Your task to perform on an android device: Search for "energizer triple a" on ebay, select the first entry, and add it to the cart. Image 0: 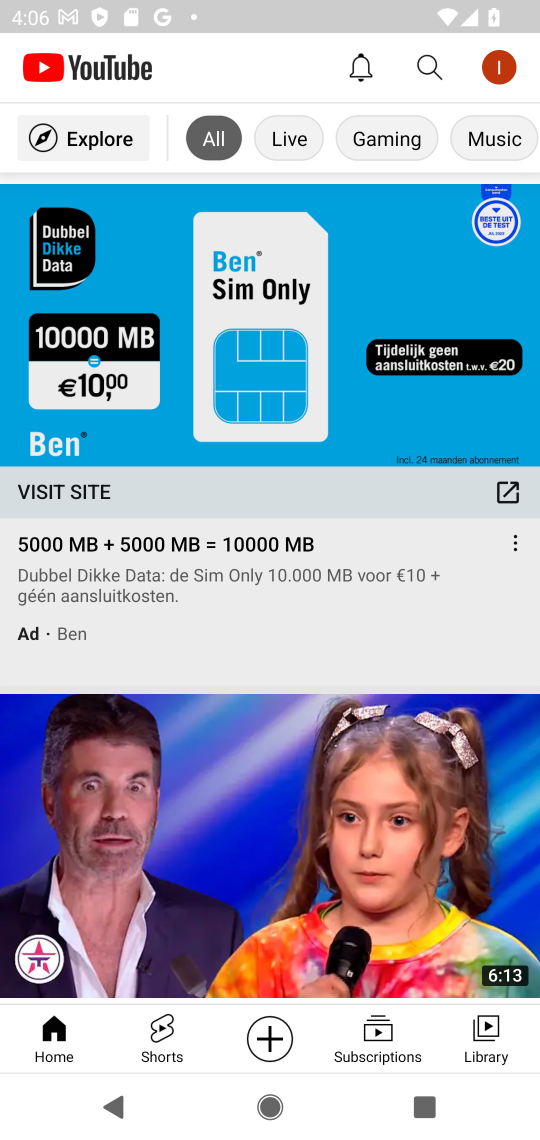
Step 0: press home button
Your task to perform on an android device: Search for "energizer triple a" on ebay, select the first entry, and add it to the cart. Image 1: 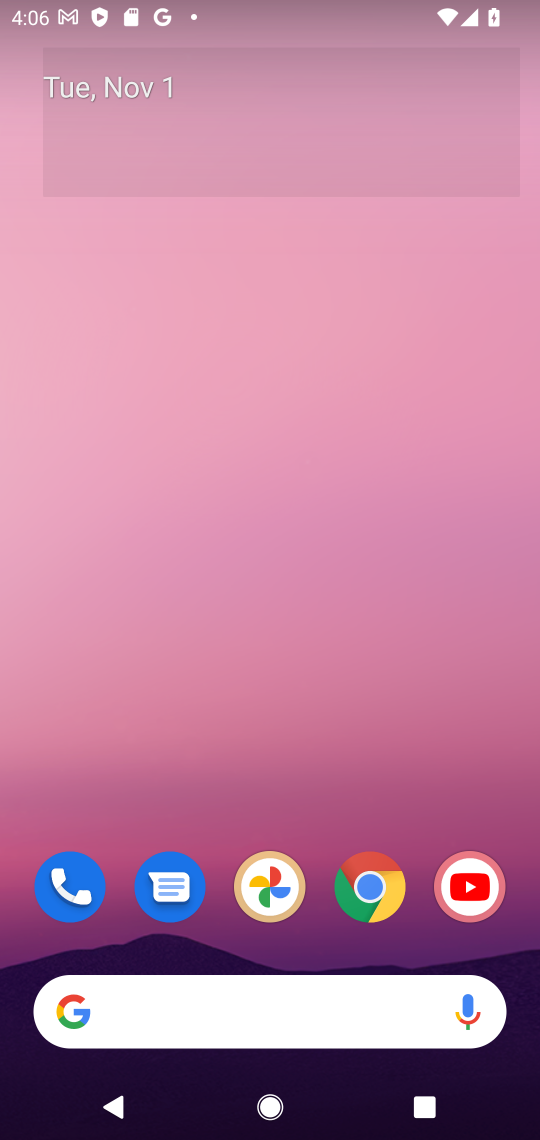
Step 1: drag from (348, 409) to (342, 155)
Your task to perform on an android device: Search for "energizer triple a" on ebay, select the first entry, and add it to the cart. Image 2: 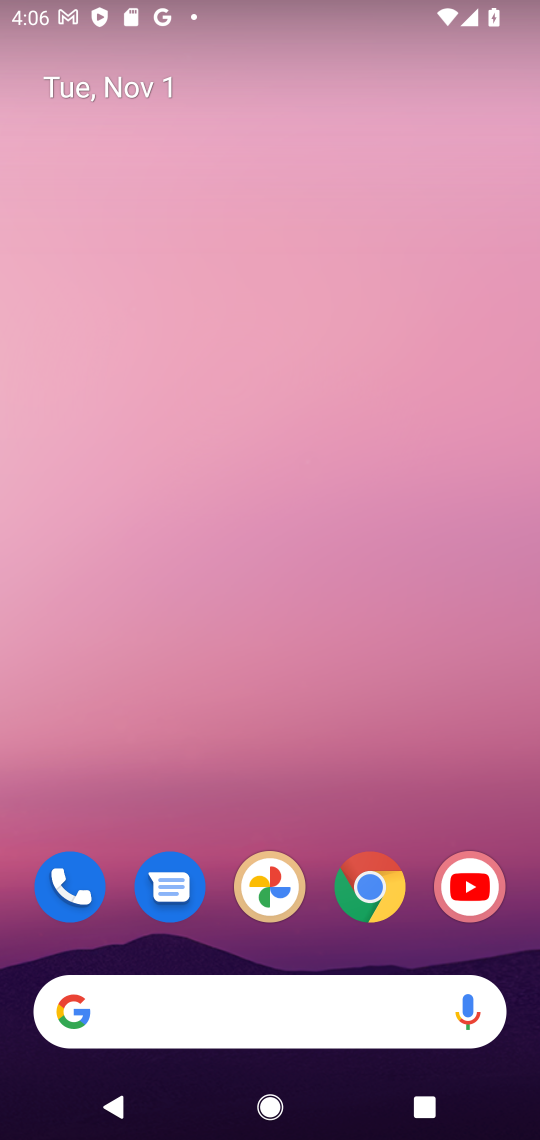
Step 2: drag from (310, 956) to (277, 221)
Your task to perform on an android device: Search for "energizer triple a" on ebay, select the first entry, and add it to the cart. Image 3: 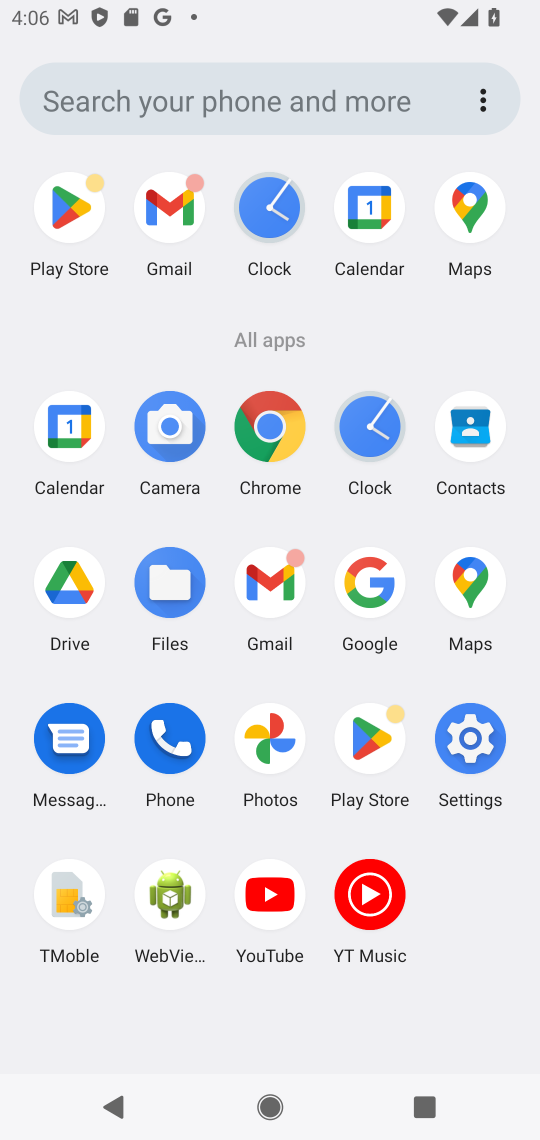
Step 3: click (265, 427)
Your task to perform on an android device: Search for "energizer triple a" on ebay, select the first entry, and add it to the cart. Image 4: 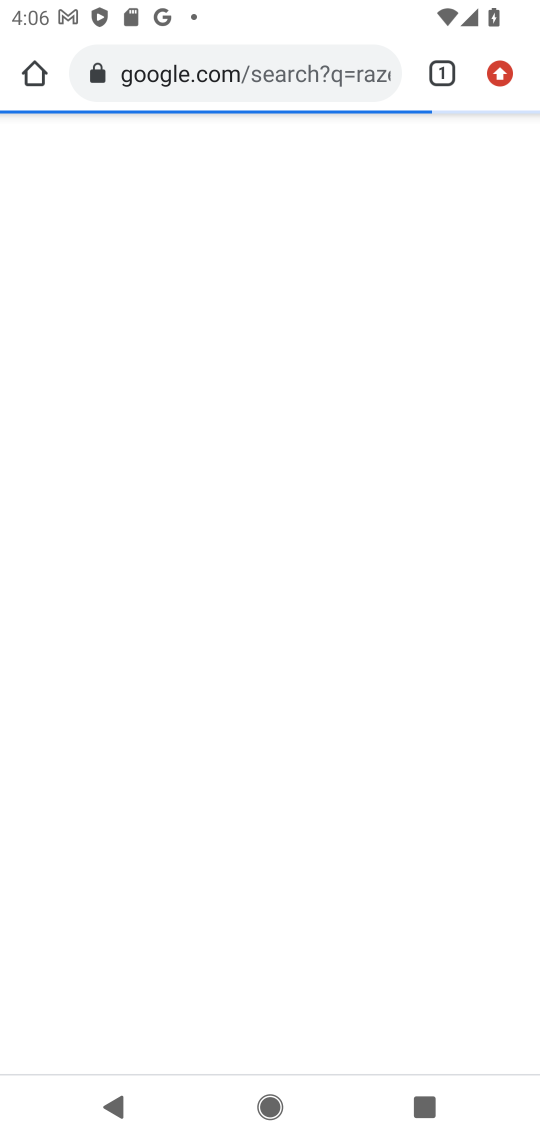
Step 4: click (318, 83)
Your task to perform on an android device: Search for "energizer triple a" on ebay, select the first entry, and add it to the cart. Image 5: 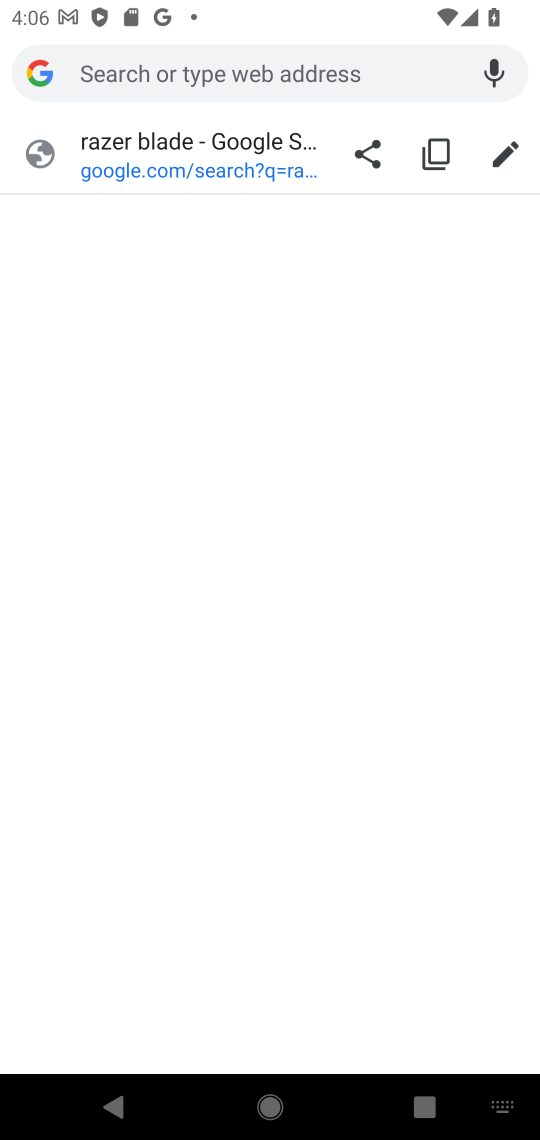
Step 5: type "ebay.com"
Your task to perform on an android device: Search for "energizer triple a" on ebay, select the first entry, and add it to the cart. Image 6: 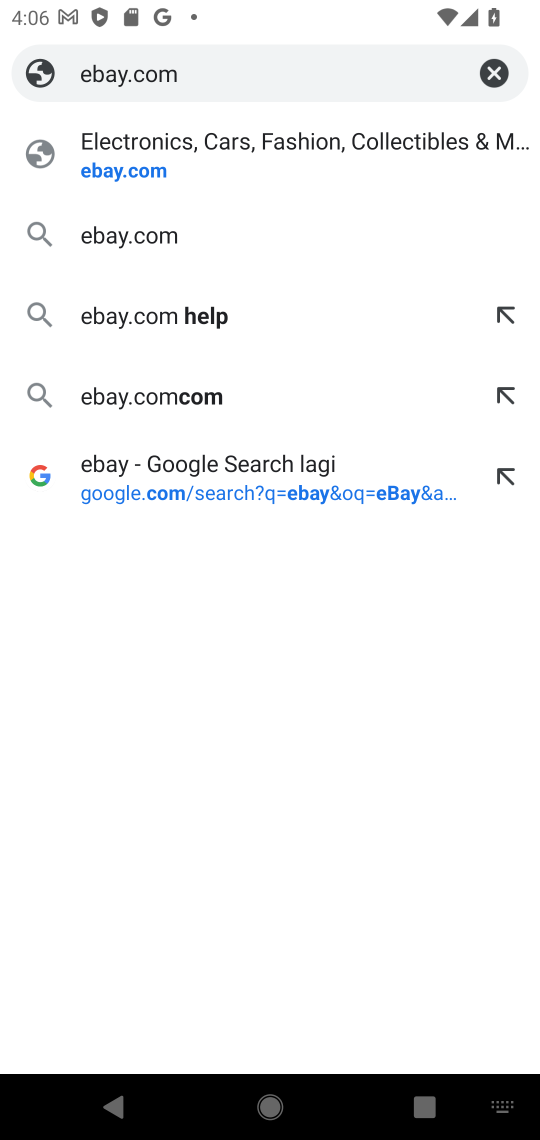
Step 6: press enter
Your task to perform on an android device: Search for "energizer triple a" on ebay, select the first entry, and add it to the cart. Image 7: 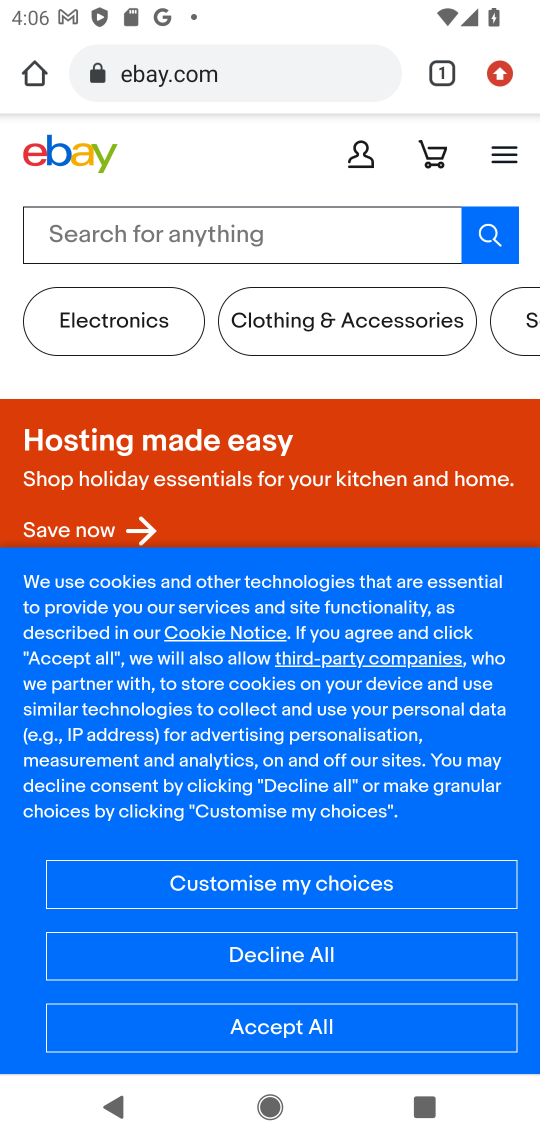
Step 7: click (314, 237)
Your task to perform on an android device: Search for "energizer triple a" on ebay, select the first entry, and add it to the cart. Image 8: 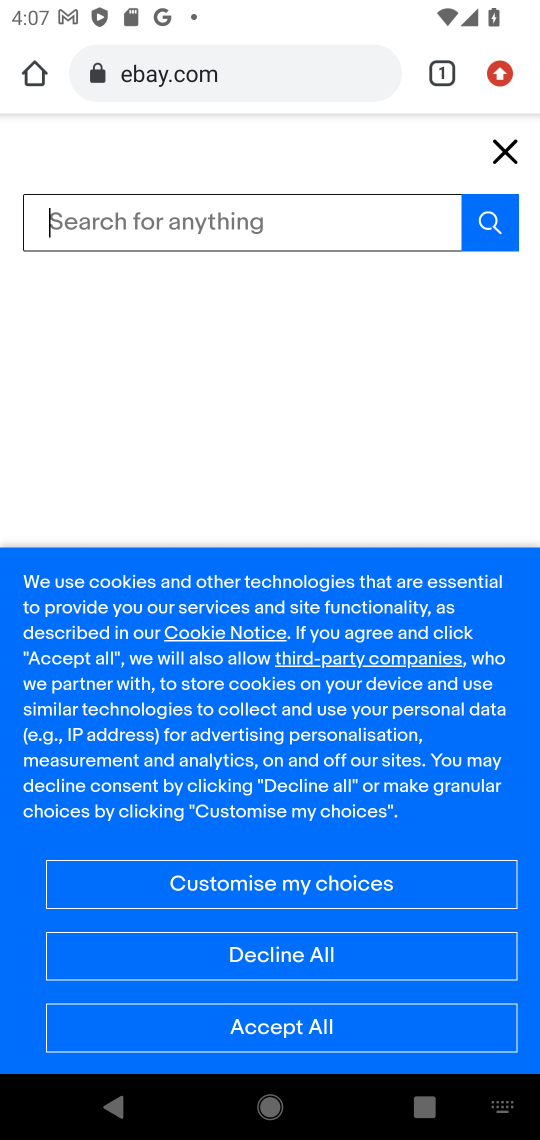
Step 8: type "energizer triple"
Your task to perform on an android device: Search for "energizer triple a" on ebay, select the first entry, and add it to the cart. Image 9: 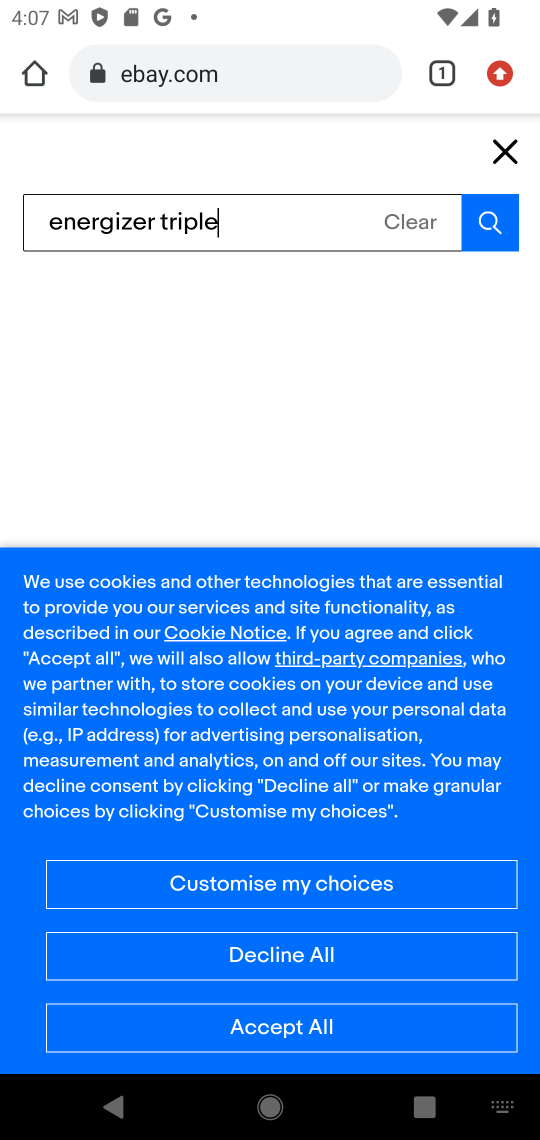
Step 9: press enter
Your task to perform on an android device: Search for "energizer triple a" on ebay, select the first entry, and add it to the cart. Image 10: 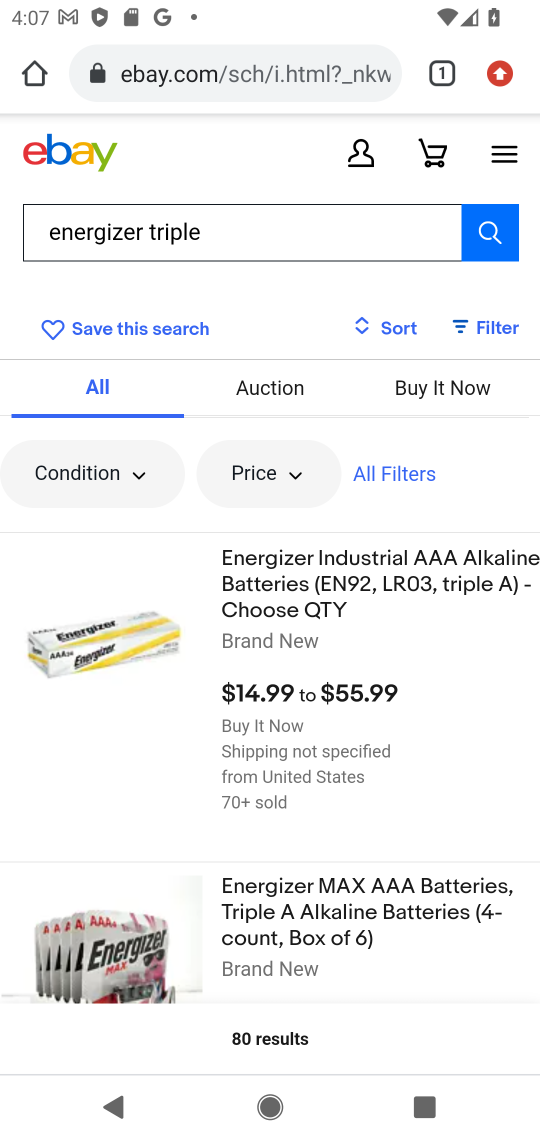
Step 10: drag from (423, 772) to (395, 584)
Your task to perform on an android device: Search for "energizer triple a" on ebay, select the first entry, and add it to the cart. Image 11: 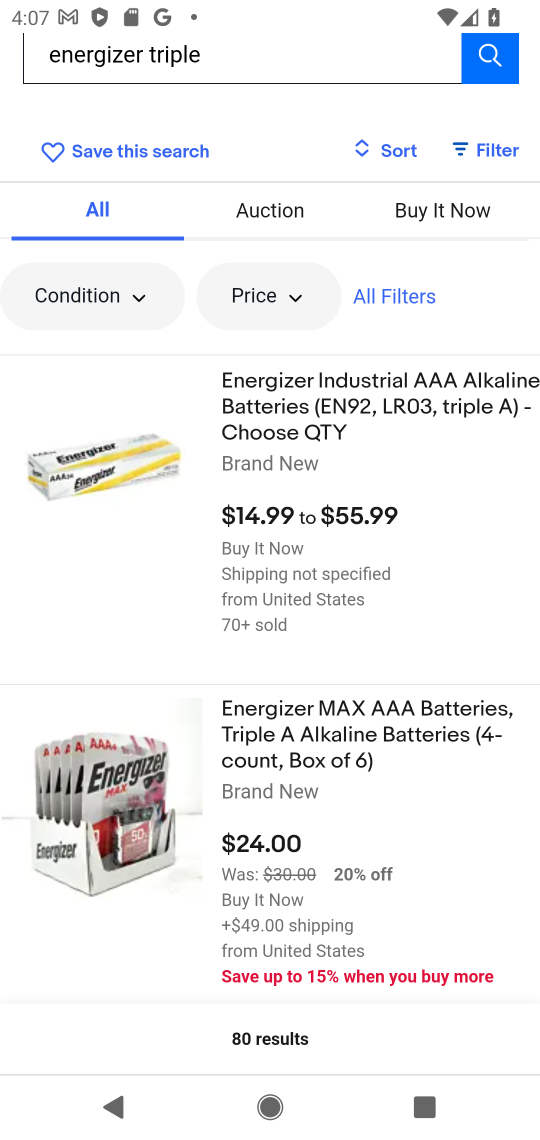
Step 11: click (285, 421)
Your task to perform on an android device: Search for "energizer triple a" on ebay, select the first entry, and add it to the cart. Image 12: 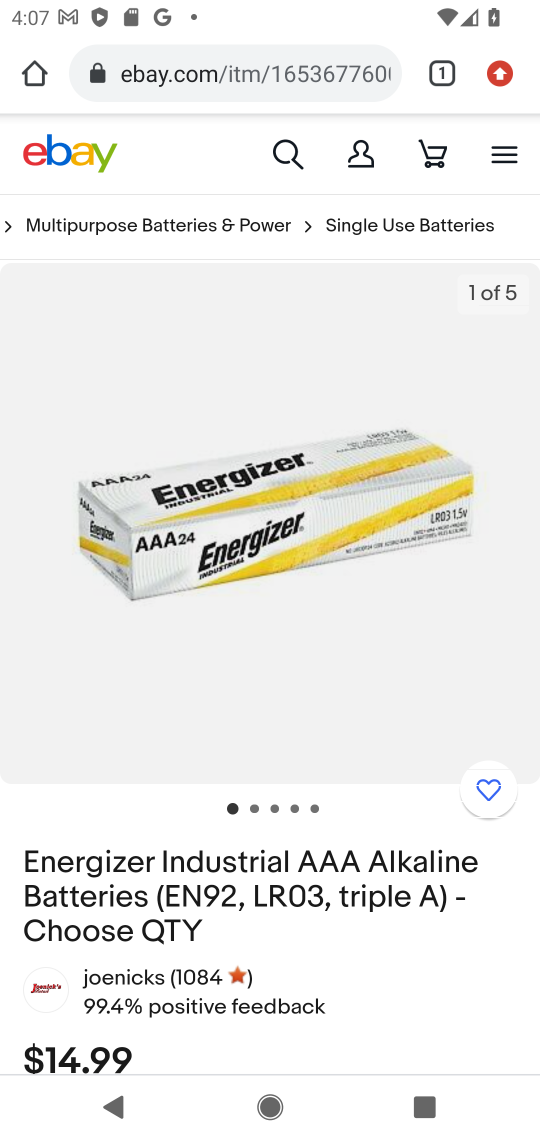
Step 12: drag from (223, 835) to (337, 354)
Your task to perform on an android device: Search for "energizer triple a" on ebay, select the first entry, and add it to the cart. Image 13: 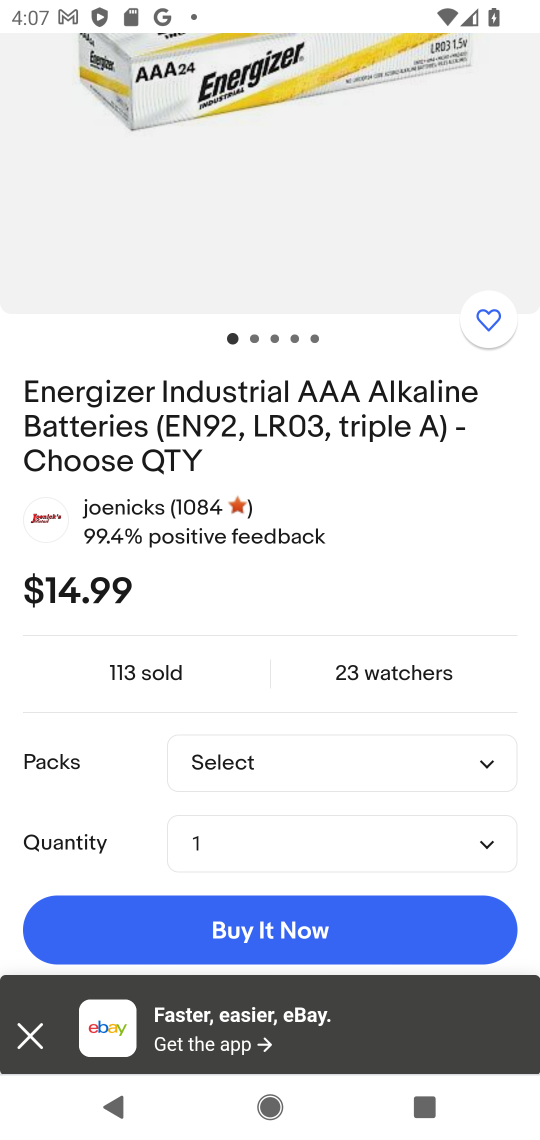
Step 13: drag from (303, 838) to (342, 453)
Your task to perform on an android device: Search for "energizer triple a" on ebay, select the first entry, and add it to the cart. Image 14: 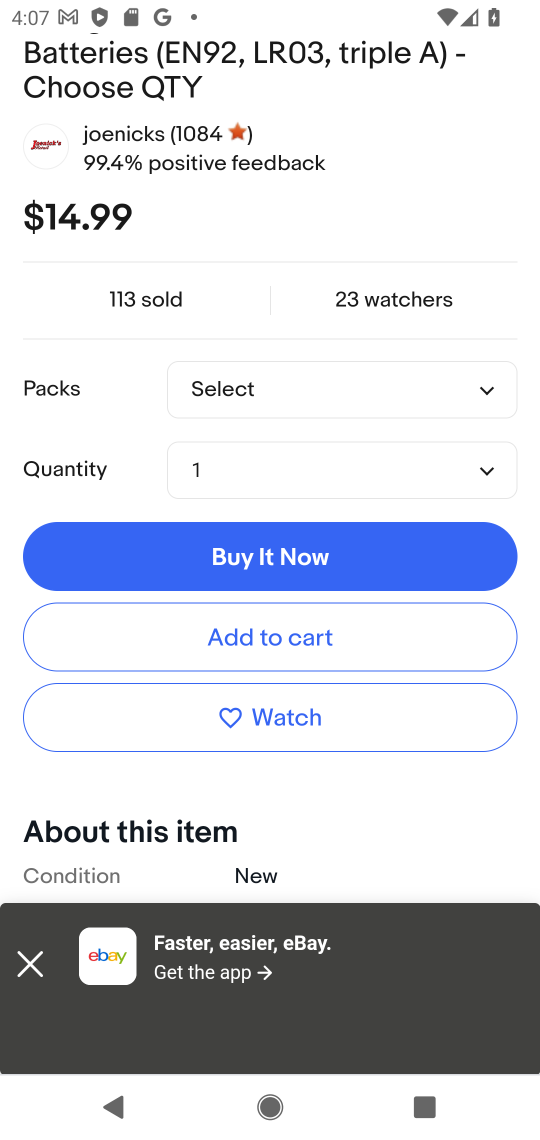
Step 14: click (298, 653)
Your task to perform on an android device: Search for "energizer triple a" on ebay, select the first entry, and add it to the cart. Image 15: 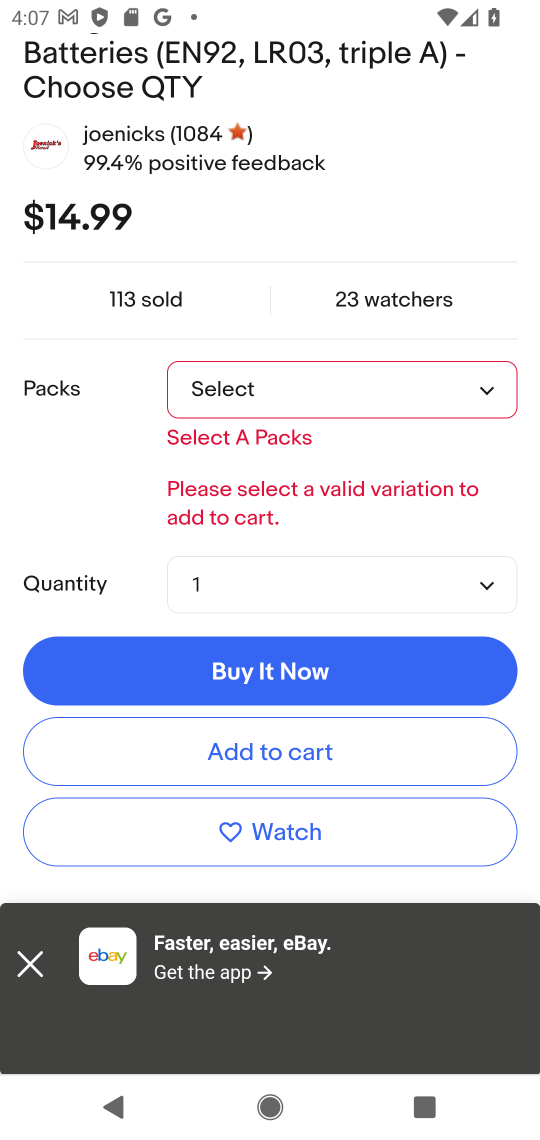
Step 15: click (434, 396)
Your task to perform on an android device: Search for "energizer triple a" on ebay, select the first entry, and add it to the cart. Image 16: 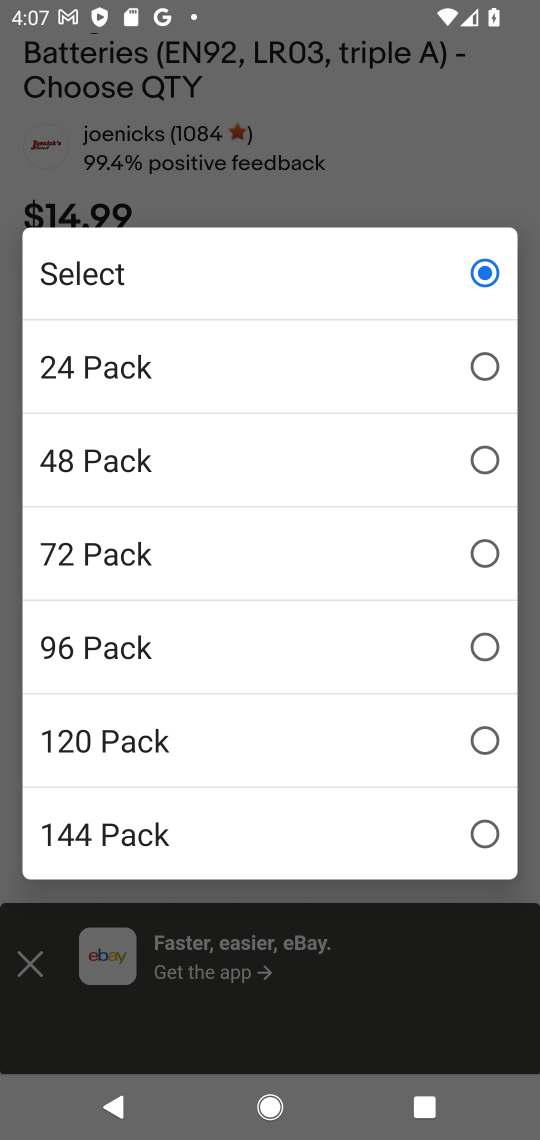
Step 16: click (318, 366)
Your task to perform on an android device: Search for "energizer triple a" on ebay, select the first entry, and add it to the cart. Image 17: 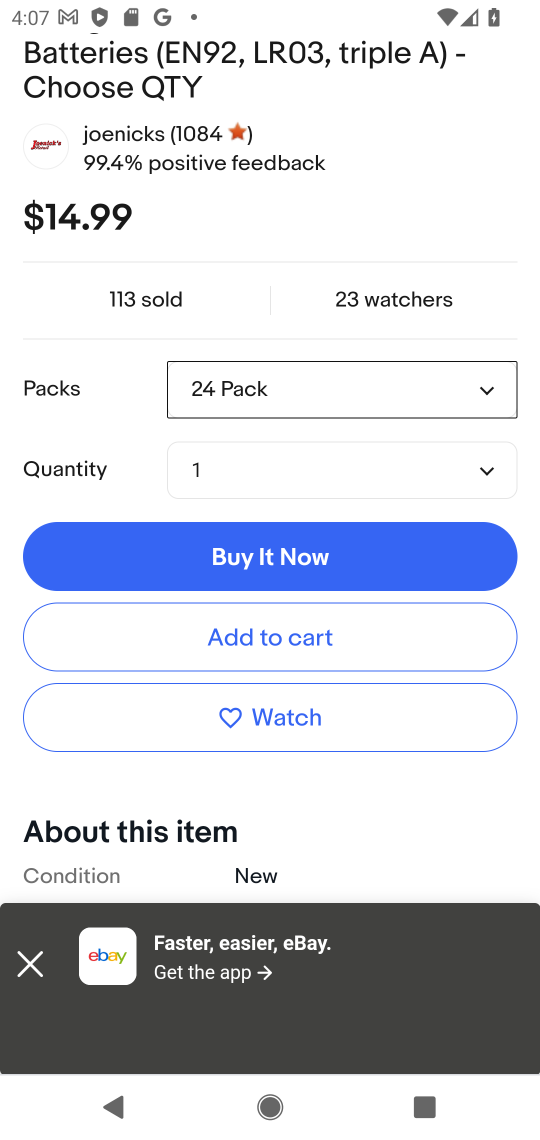
Step 17: click (340, 640)
Your task to perform on an android device: Search for "energizer triple a" on ebay, select the first entry, and add it to the cart. Image 18: 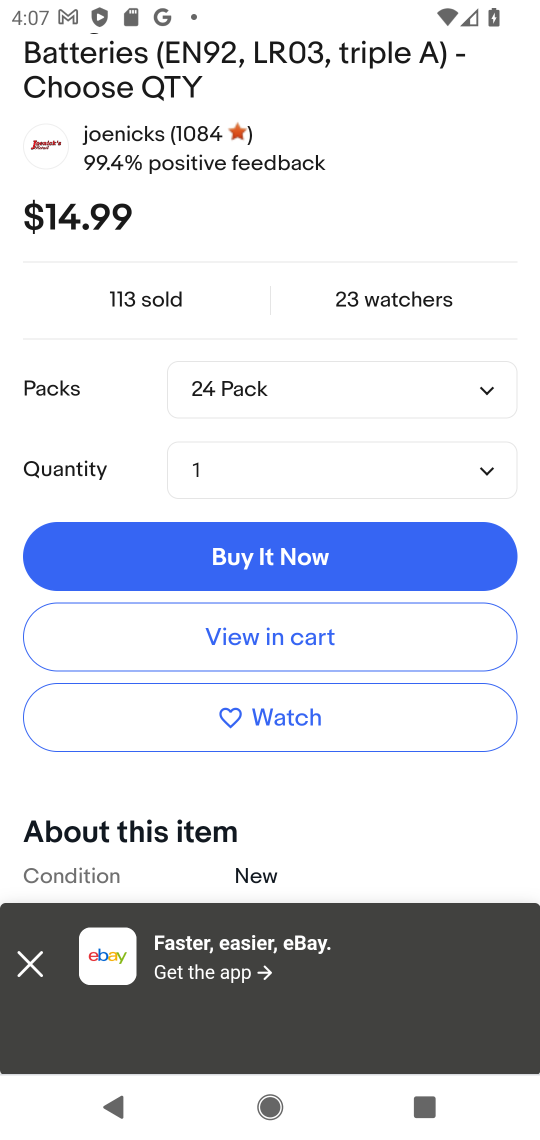
Step 18: task complete